Your task to perform on an android device: Open wifi settings Image 0: 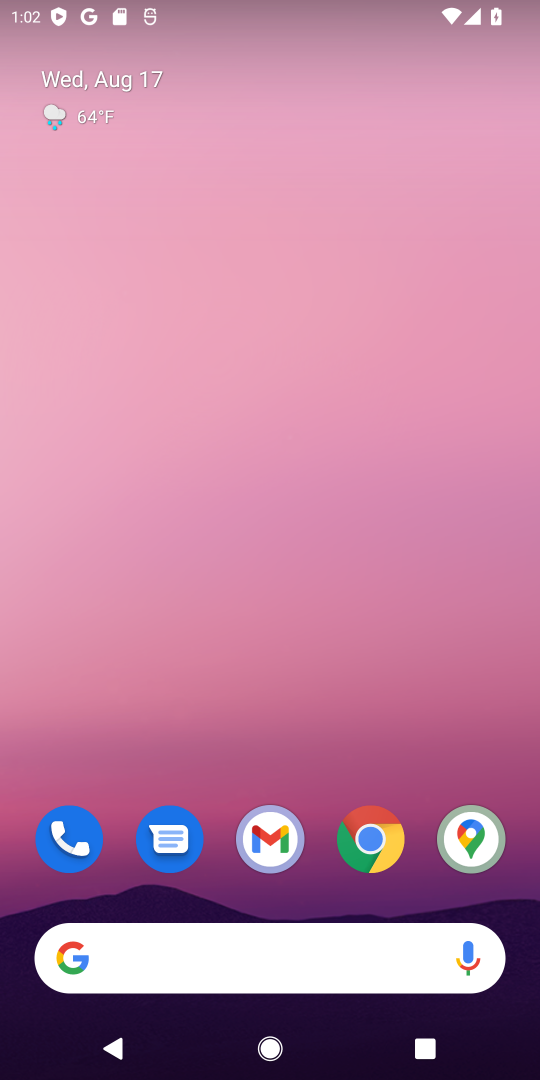
Step 0: drag from (232, 981) to (228, 427)
Your task to perform on an android device: Open wifi settings Image 1: 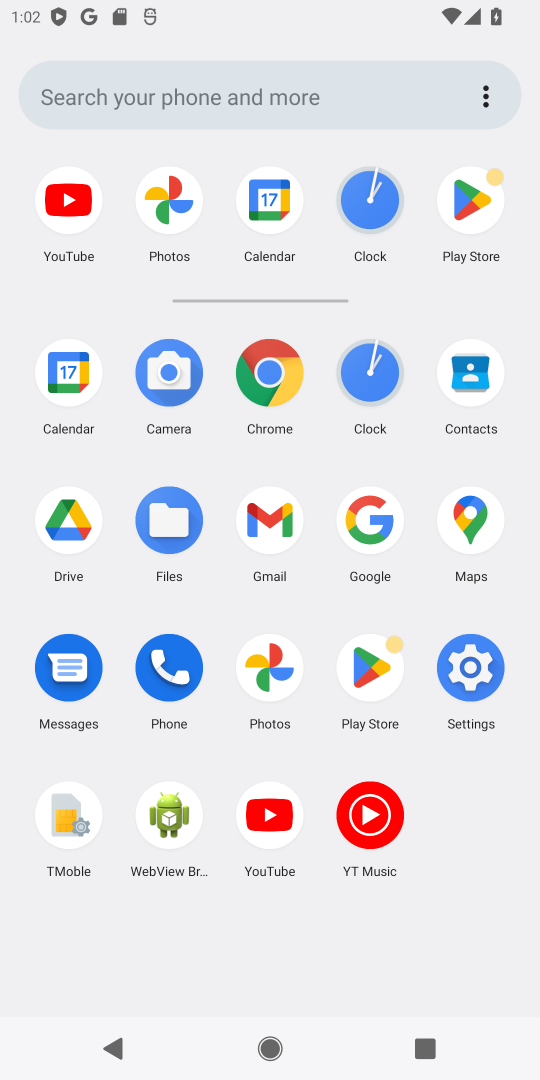
Step 1: click (471, 669)
Your task to perform on an android device: Open wifi settings Image 2: 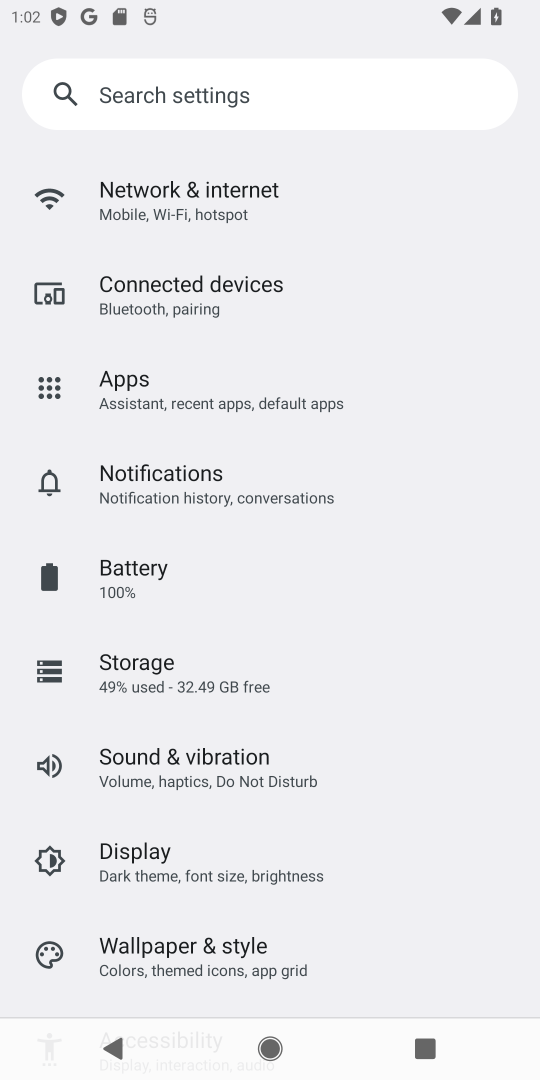
Step 2: click (211, 215)
Your task to perform on an android device: Open wifi settings Image 3: 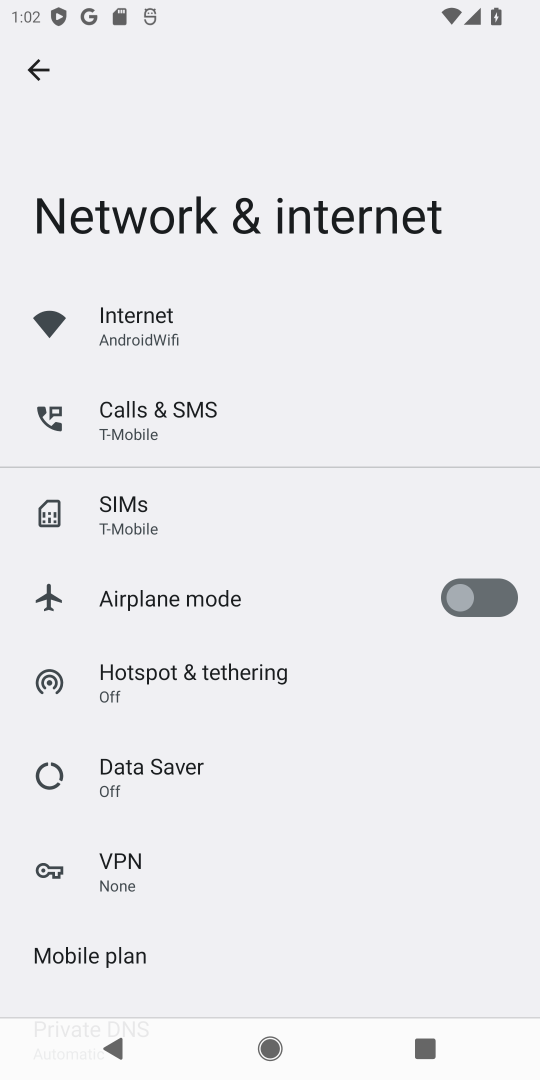
Step 3: click (189, 340)
Your task to perform on an android device: Open wifi settings Image 4: 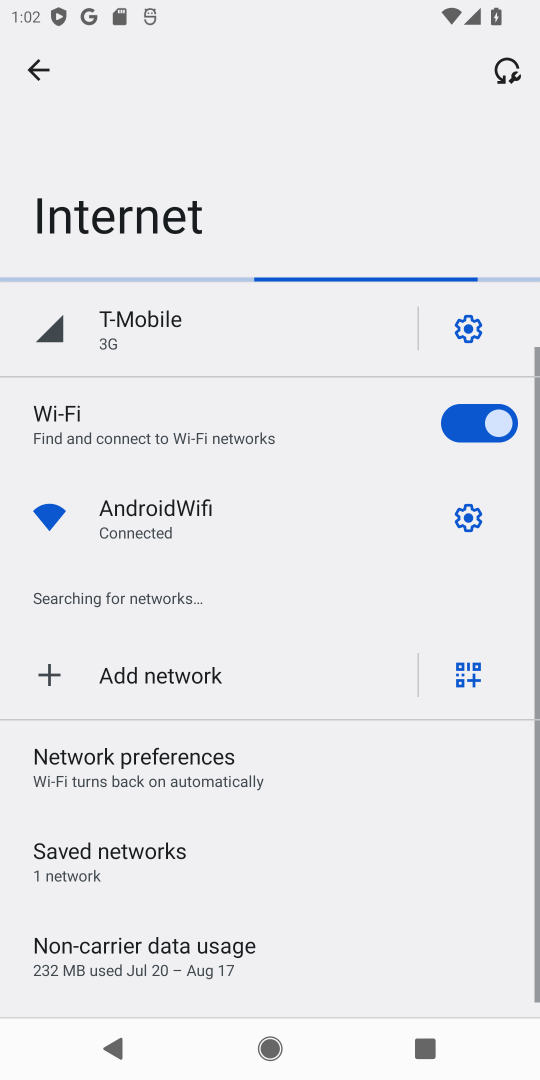
Step 4: click (463, 511)
Your task to perform on an android device: Open wifi settings Image 5: 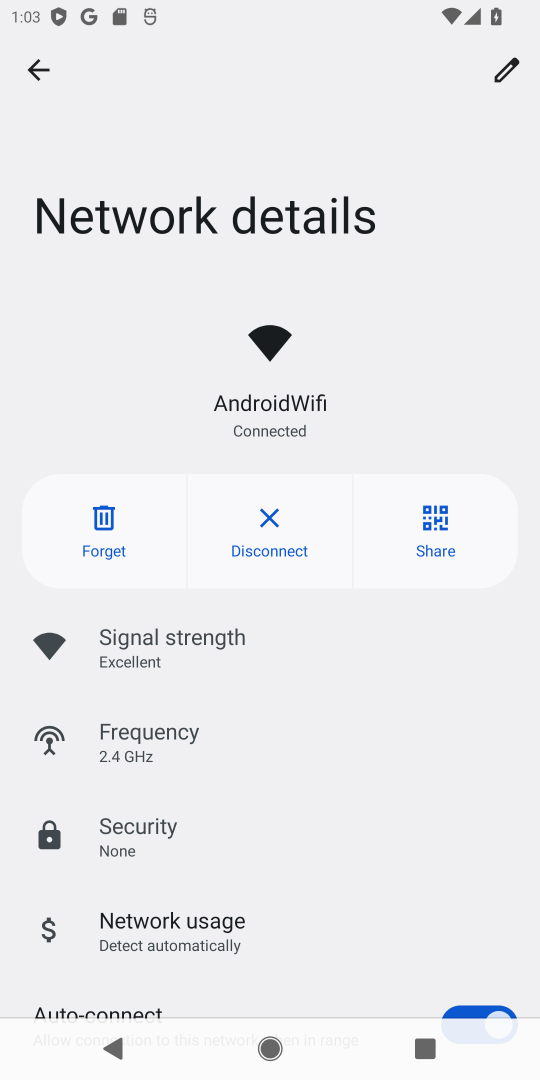
Step 5: task complete